Your task to perform on an android device: Check the news Image 0: 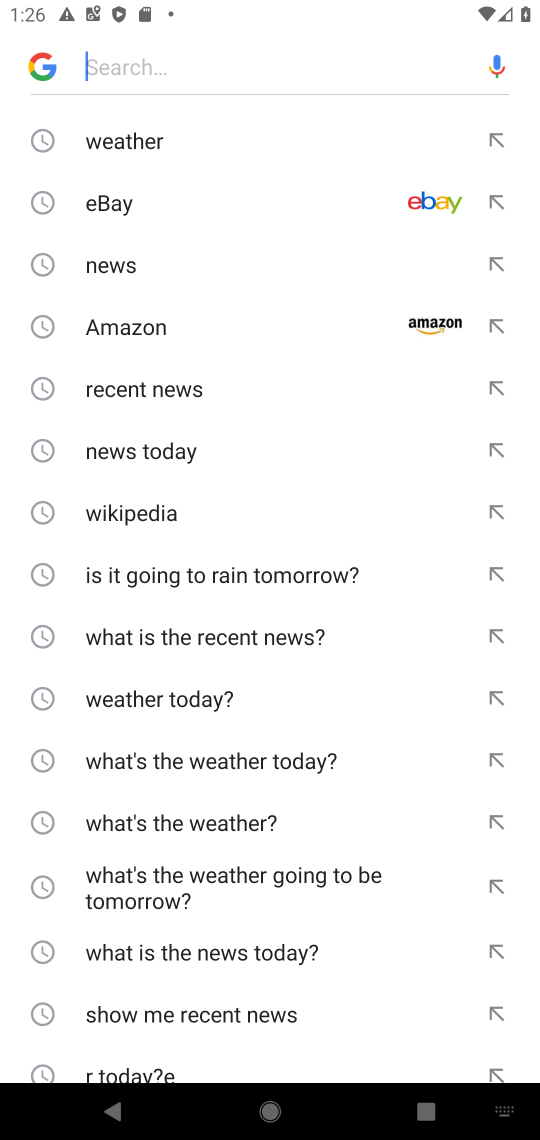
Step 0: click (100, 259)
Your task to perform on an android device: Check the news Image 1: 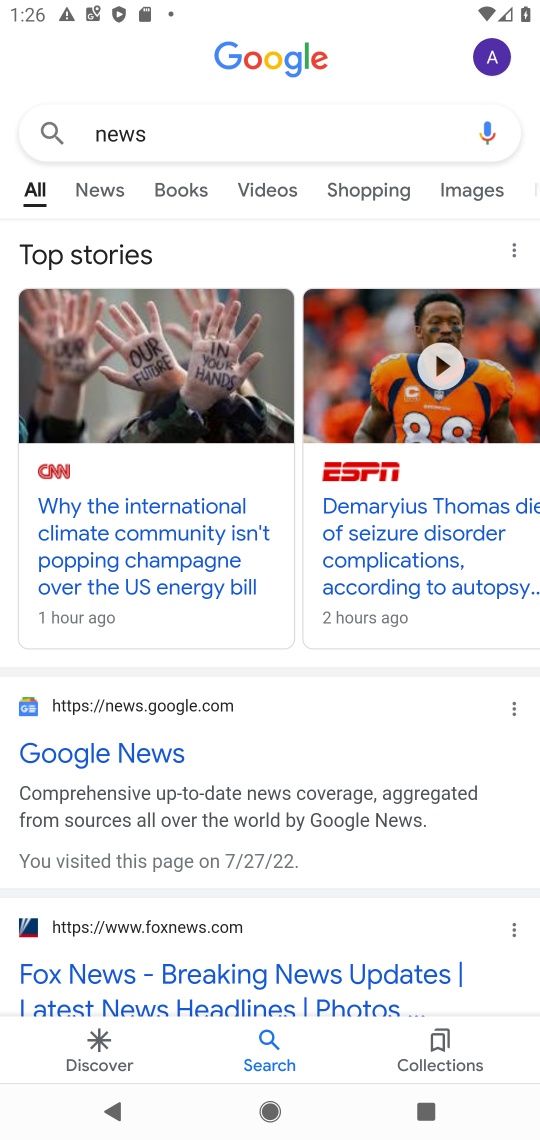
Step 1: click (130, 748)
Your task to perform on an android device: Check the news Image 2: 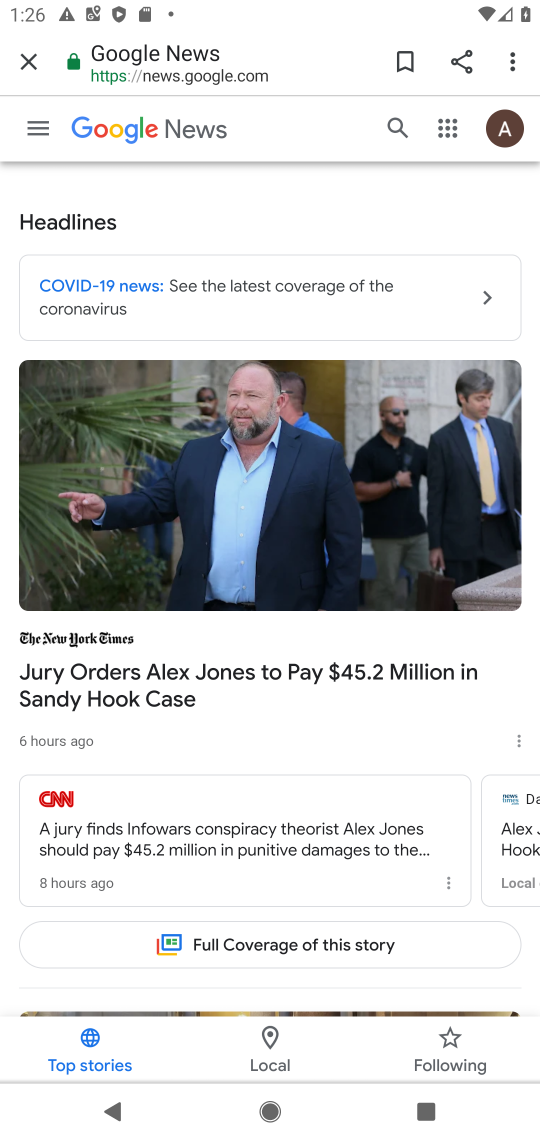
Step 2: task complete